Your task to perform on an android device: turn off translation in the chrome app Image 0: 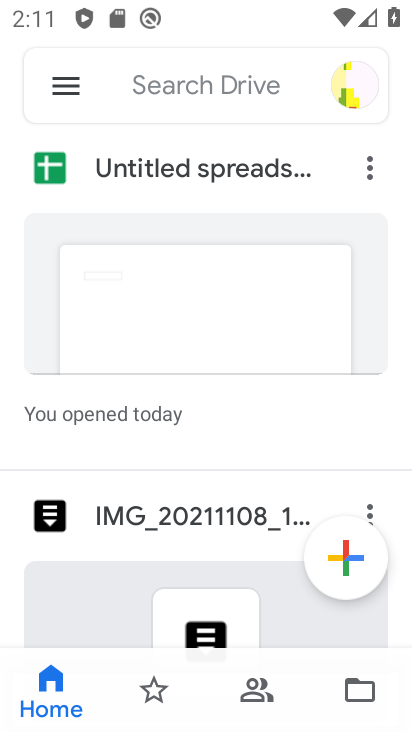
Step 0: press home button
Your task to perform on an android device: turn off translation in the chrome app Image 1: 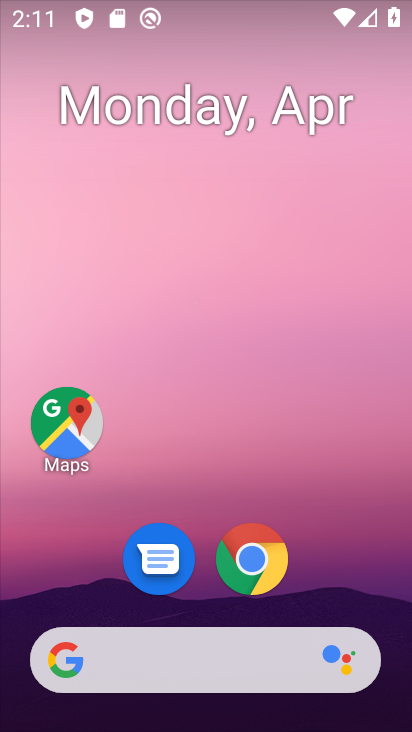
Step 1: click (237, 547)
Your task to perform on an android device: turn off translation in the chrome app Image 2: 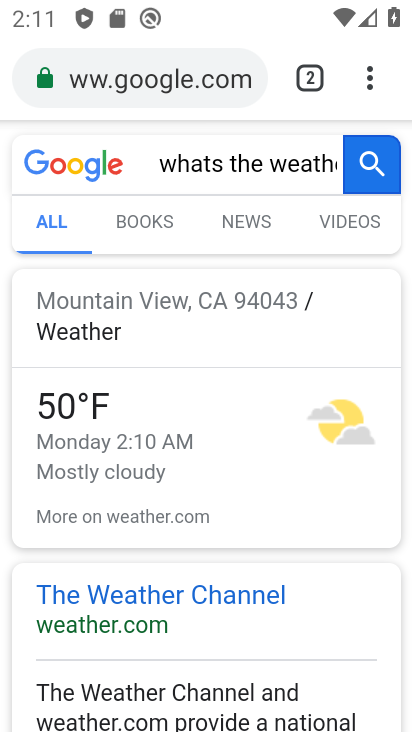
Step 2: drag from (368, 83) to (95, 615)
Your task to perform on an android device: turn off translation in the chrome app Image 3: 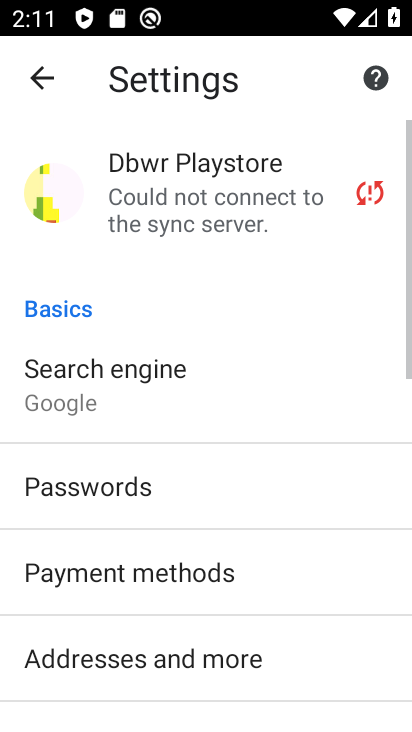
Step 3: drag from (288, 682) to (197, 215)
Your task to perform on an android device: turn off translation in the chrome app Image 4: 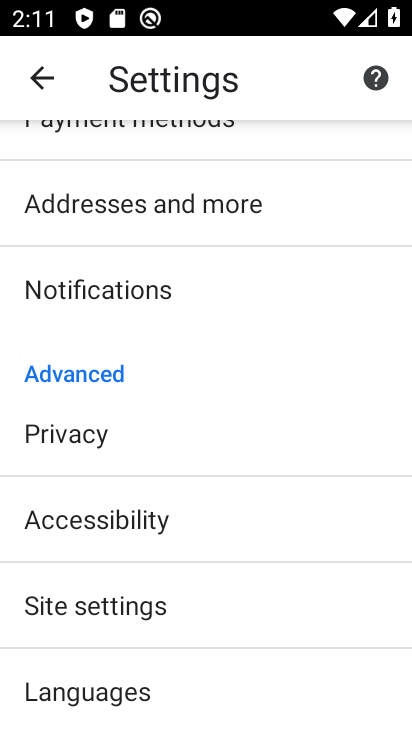
Step 4: drag from (83, 694) to (83, 442)
Your task to perform on an android device: turn off translation in the chrome app Image 5: 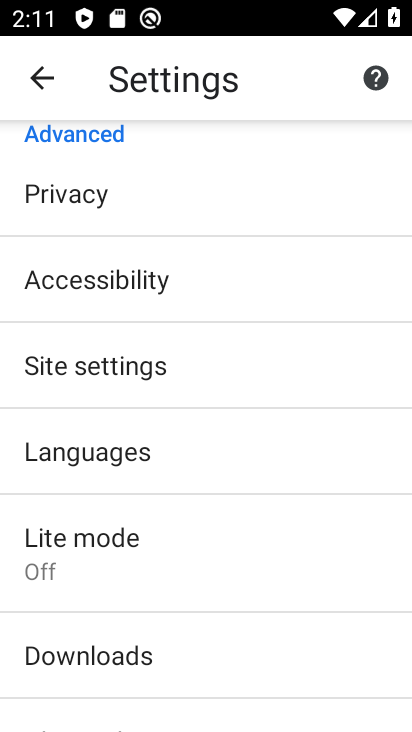
Step 5: click (89, 434)
Your task to perform on an android device: turn off translation in the chrome app Image 6: 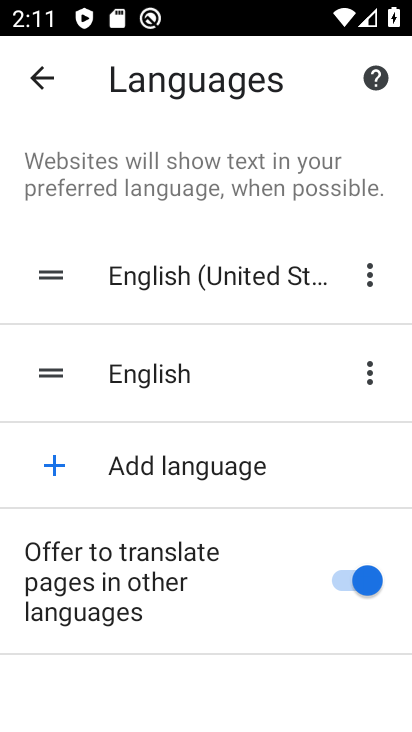
Step 6: click (369, 583)
Your task to perform on an android device: turn off translation in the chrome app Image 7: 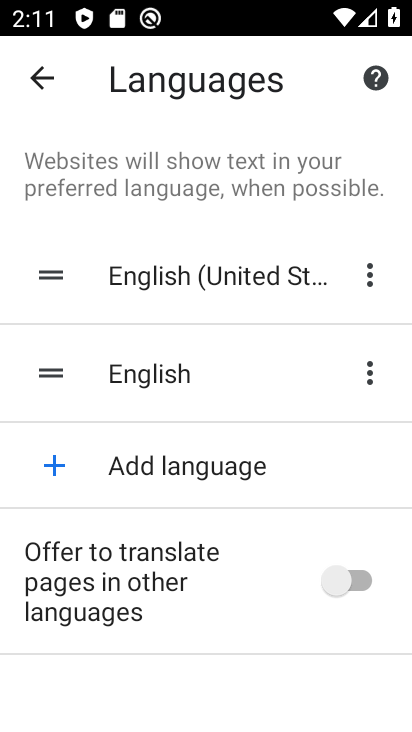
Step 7: task complete